Your task to perform on an android device: toggle notifications settings in the gmail app Image 0: 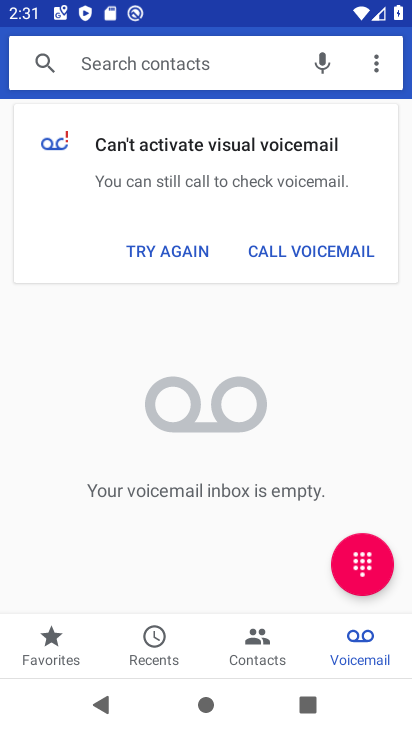
Step 0: press home button
Your task to perform on an android device: toggle notifications settings in the gmail app Image 1: 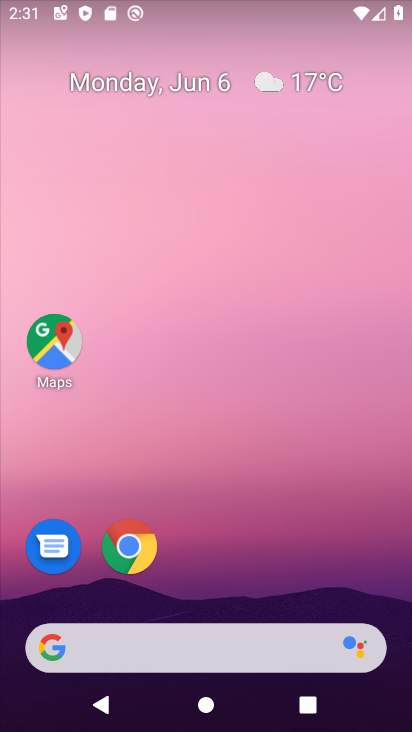
Step 1: drag from (328, 543) to (277, 133)
Your task to perform on an android device: toggle notifications settings in the gmail app Image 2: 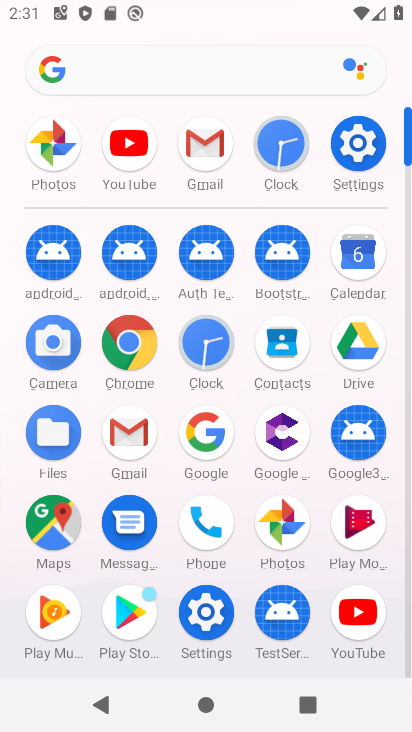
Step 2: click (344, 157)
Your task to perform on an android device: toggle notifications settings in the gmail app Image 3: 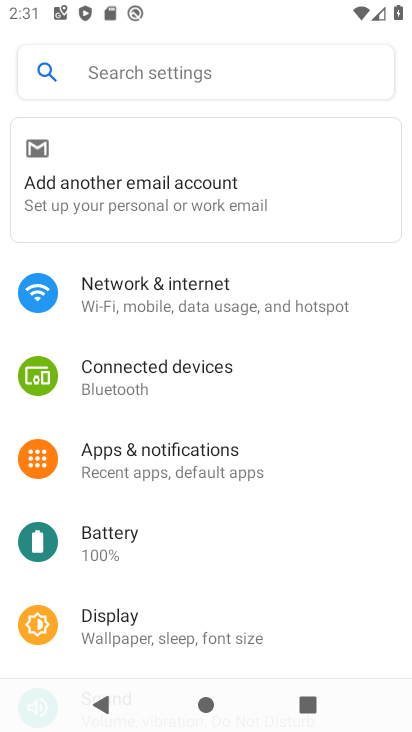
Step 3: click (173, 458)
Your task to perform on an android device: toggle notifications settings in the gmail app Image 4: 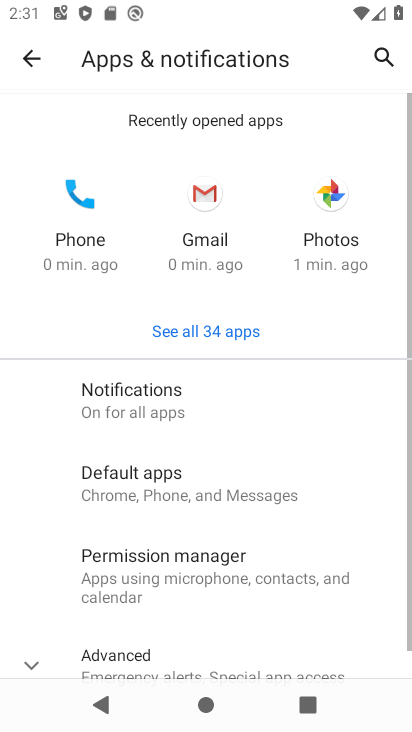
Step 4: drag from (173, 458) to (145, 234)
Your task to perform on an android device: toggle notifications settings in the gmail app Image 5: 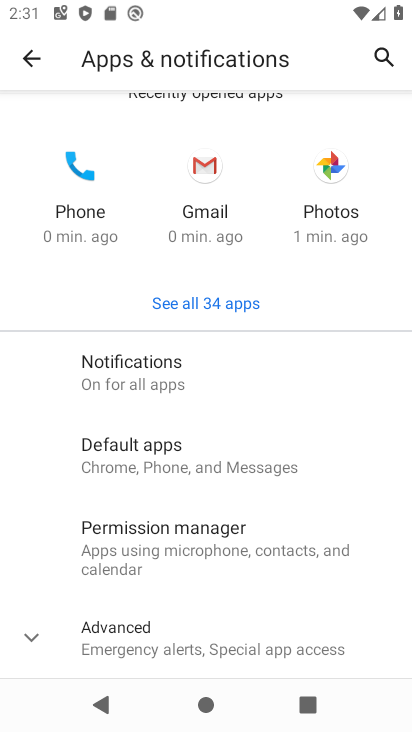
Step 5: click (19, 56)
Your task to perform on an android device: toggle notifications settings in the gmail app Image 6: 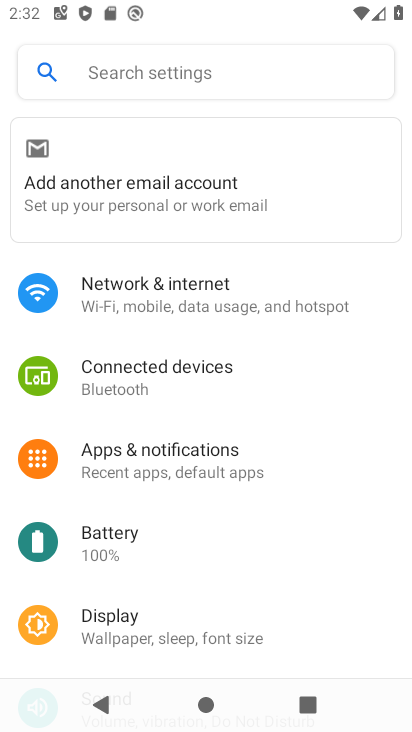
Step 6: press home button
Your task to perform on an android device: toggle notifications settings in the gmail app Image 7: 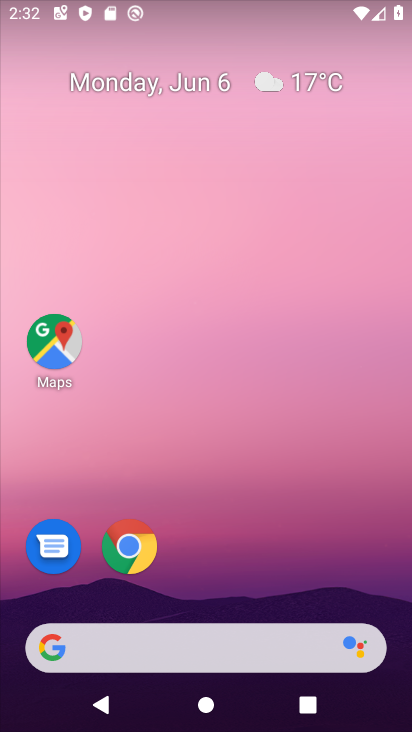
Step 7: drag from (275, 538) to (291, 114)
Your task to perform on an android device: toggle notifications settings in the gmail app Image 8: 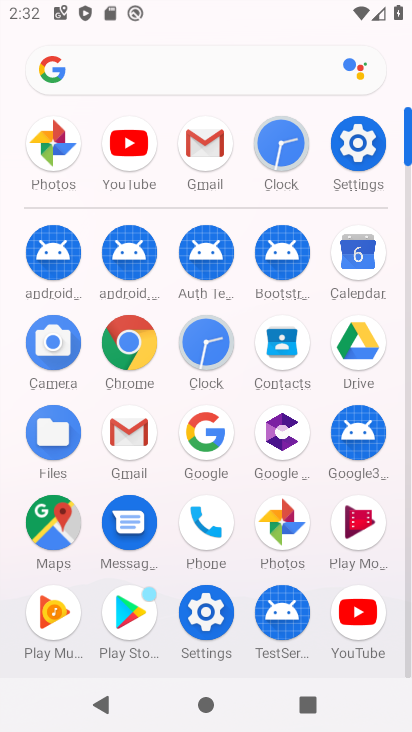
Step 8: click (204, 152)
Your task to perform on an android device: toggle notifications settings in the gmail app Image 9: 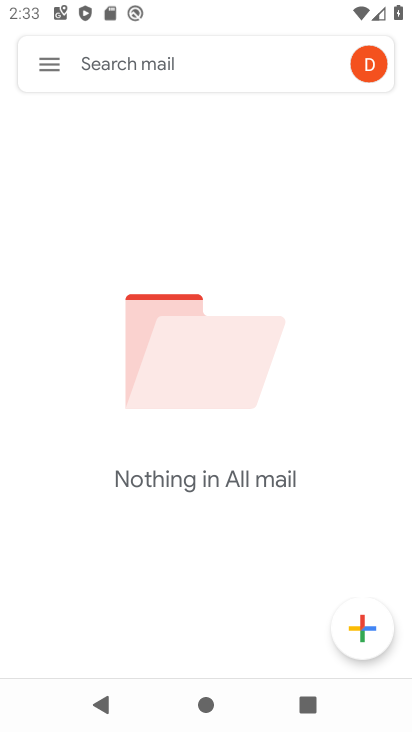
Step 9: click (60, 68)
Your task to perform on an android device: toggle notifications settings in the gmail app Image 10: 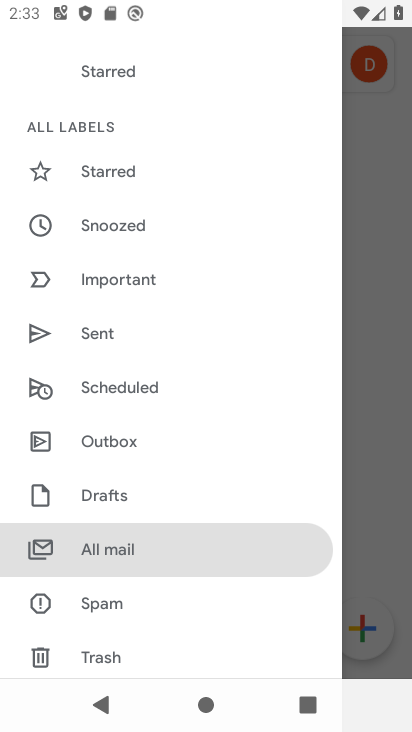
Step 10: task complete